Your task to perform on an android device: clear history in the chrome app Image 0: 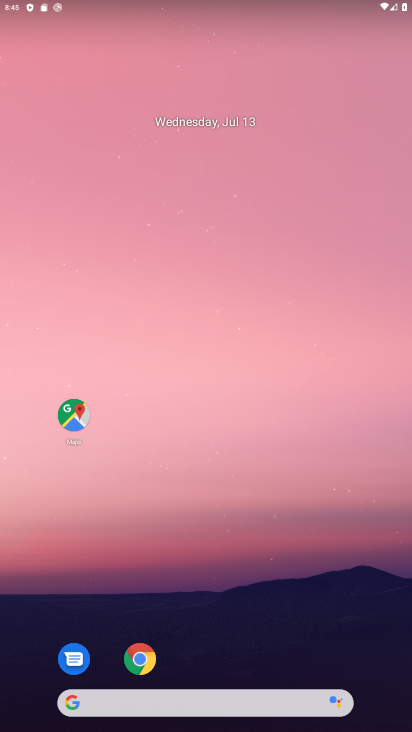
Step 0: click (140, 661)
Your task to perform on an android device: clear history in the chrome app Image 1: 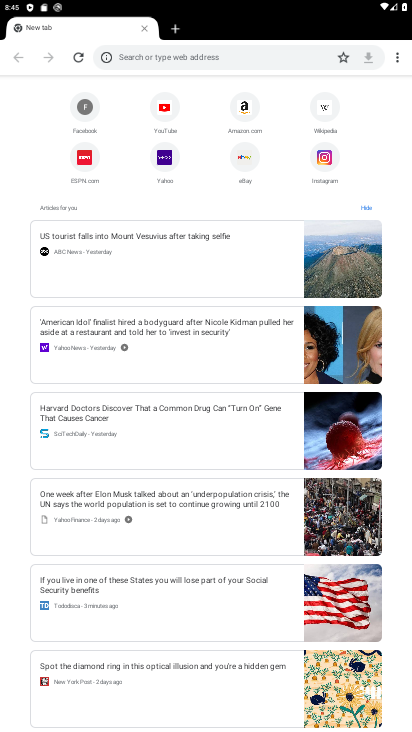
Step 1: click (396, 62)
Your task to perform on an android device: clear history in the chrome app Image 2: 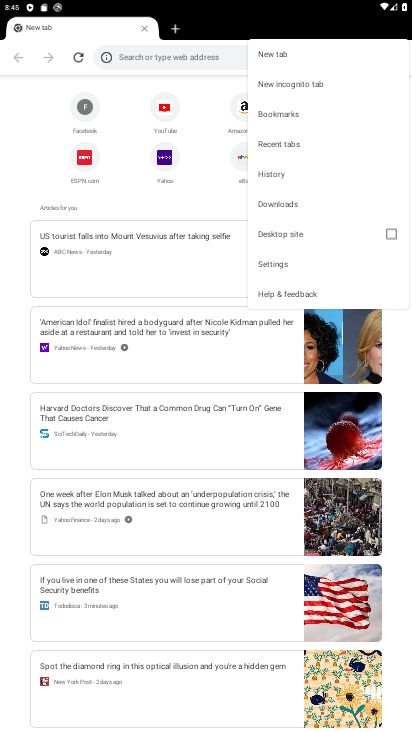
Step 2: click (273, 176)
Your task to perform on an android device: clear history in the chrome app Image 3: 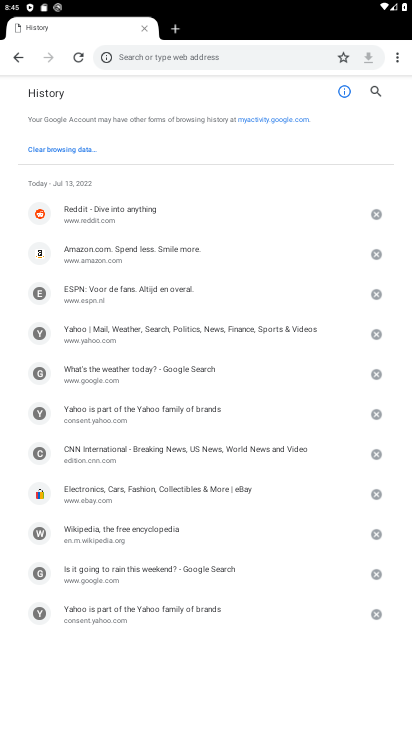
Step 3: click (51, 149)
Your task to perform on an android device: clear history in the chrome app Image 4: 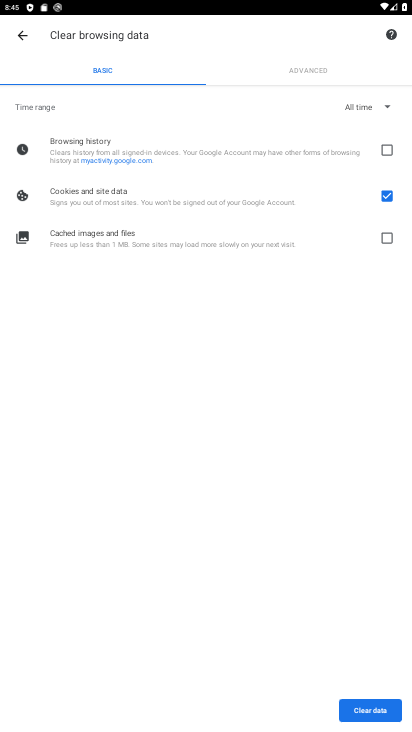
Step 4: click (384, 150)
Your task to perform on an android device: clear history in the chrome app Image 5: 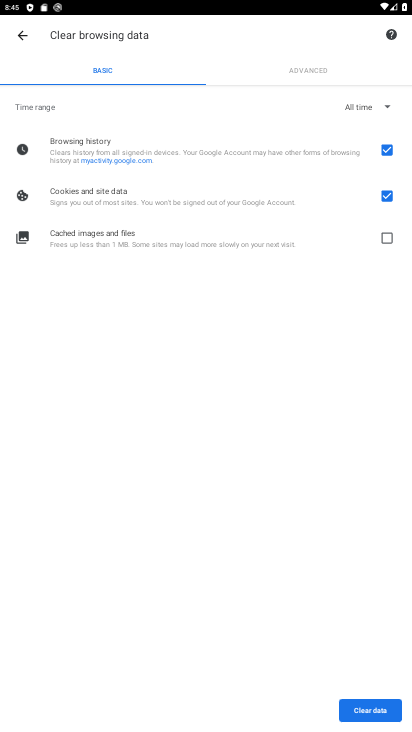
Step 5: click (385, 196)
Your task to perform on an android device: clear history in the chrome app Image 6: 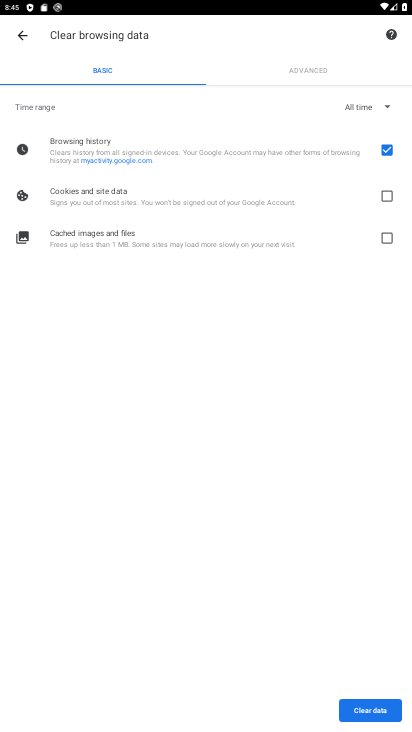
Step 6: click (370, 709)
Your task to perform on an android device: clear history in the chrome app Image 7: 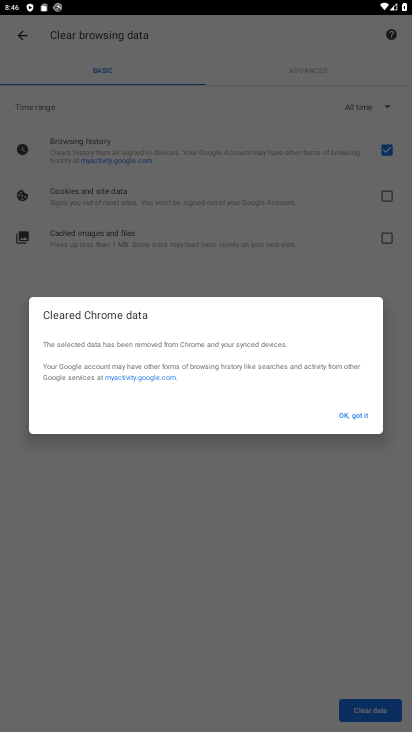
Step 7: click (347, 417)
Your task to perform on an android device: clear history in the chrome app Image 8: 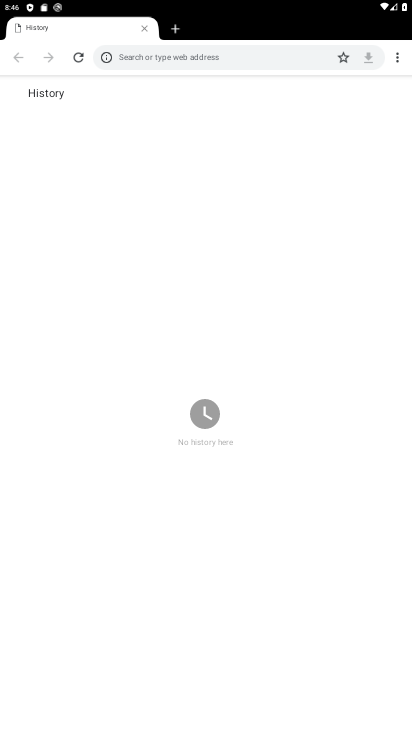
Step 8: task complete